Your task to perform on an android device: What's the weather? Image 0: 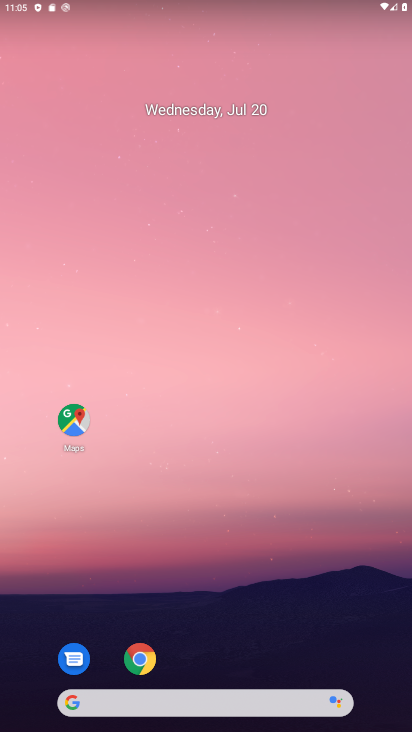
Step 0: click (183, 704)
Your task to perform on an android device: What's the weather? Image 1: 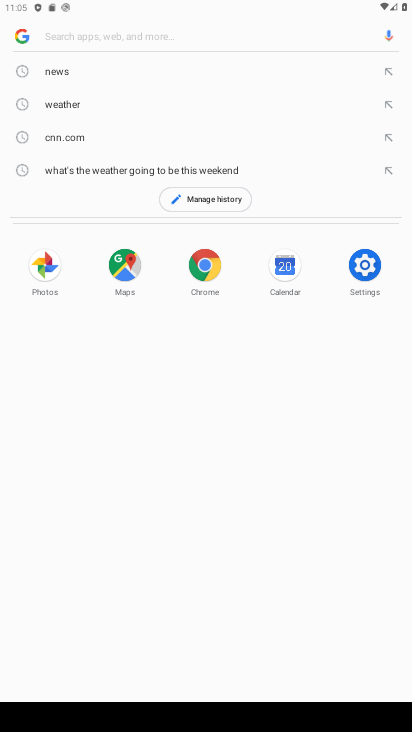
Step 1: click (70, 112)
Your task to perform on an android device: What's the weather? Image 2: 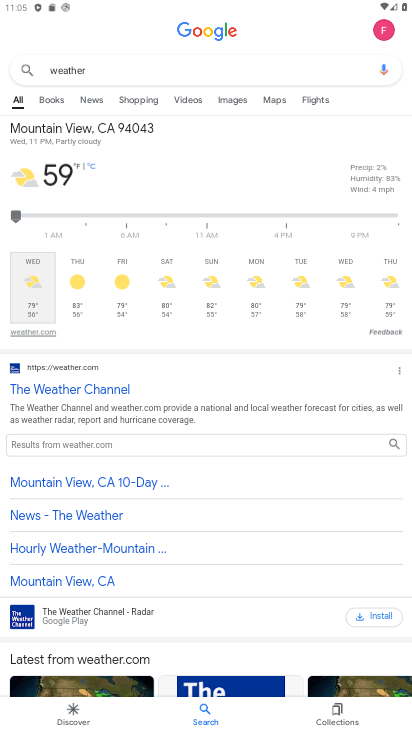
Step 2: task complete